Your task to perform on an android device: turn off wifi Image 0: 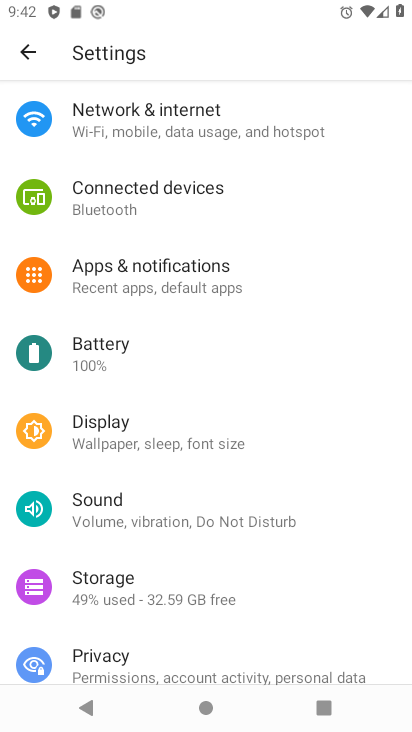
Step 0: click (132, 128)
Your task to perform on an android device: turn off wifi Image 1: 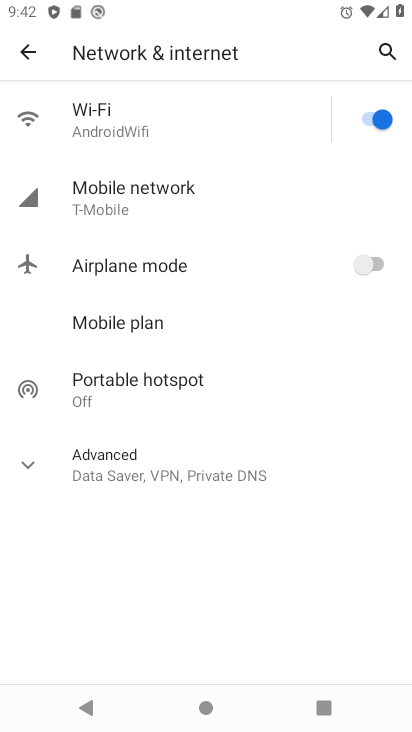
Step 1: click (365, 118)
Your task to perform on an android device: turn off wifi Image 2: 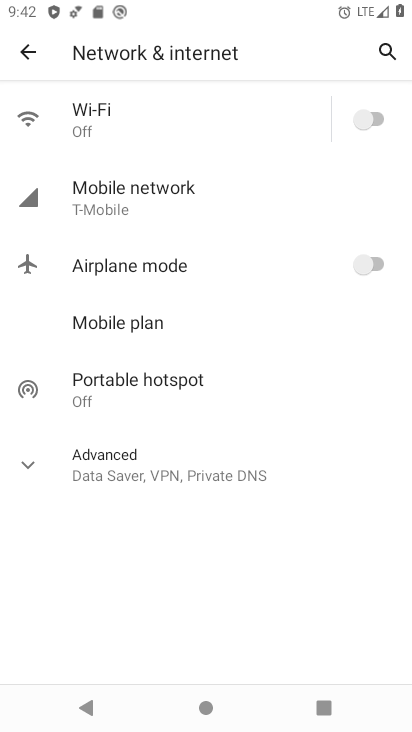
Step 2: task complete